Your task to perform on an android device: Search for Mexican restaurants on Maps Image 0: 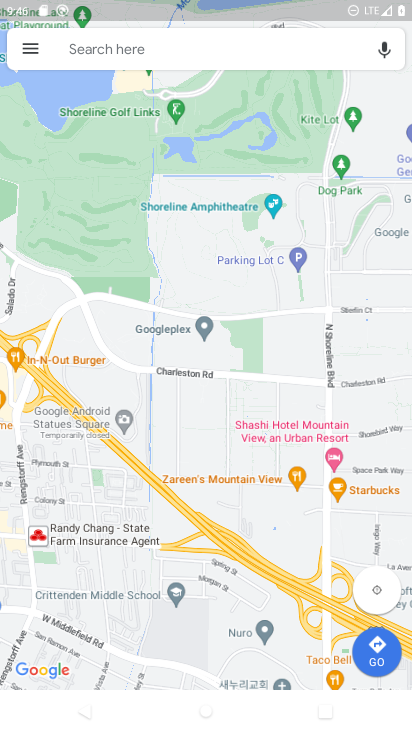
Step 0: click (200, 33)
Your task to perform on an android device: Search for Mexican restaurants on Maps Image 1: 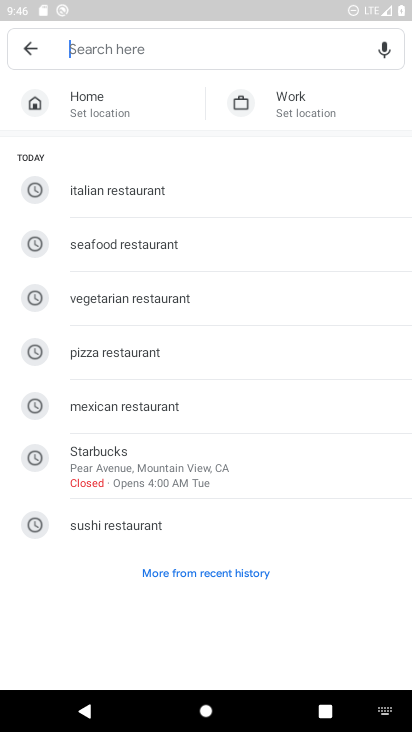
Step 1: type "mexican"
Your task to perform on an android device: Search for Mexican restaurants on Maps Image 2: 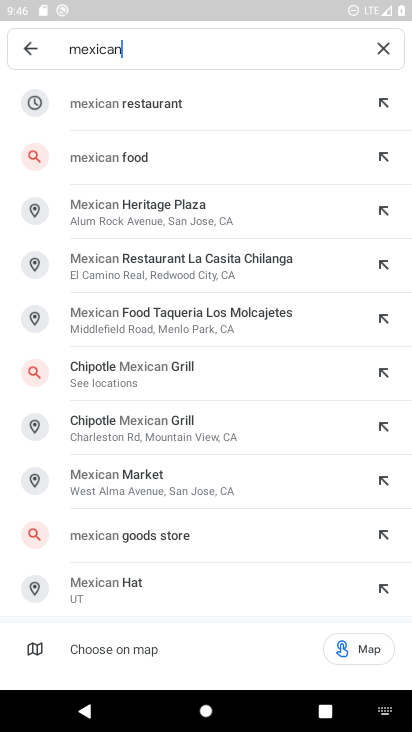
Step 2: click (180, 110)
Your task to perform on an android device: Search for Mexican restaurants on Maps Image 3: 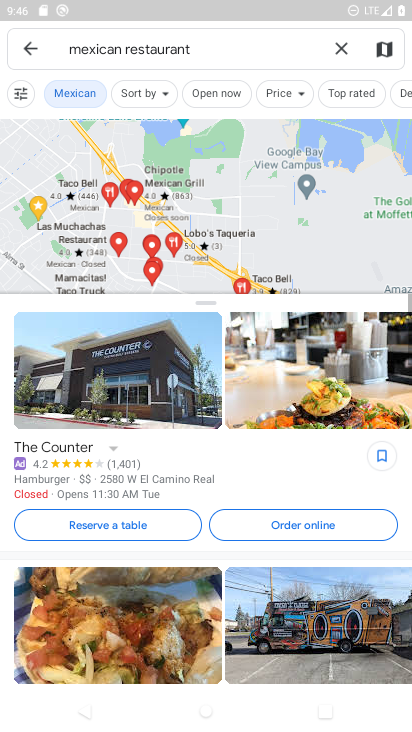
Step 3: task complete